Your task to perform on an android device: Open CNN.com Image 0: 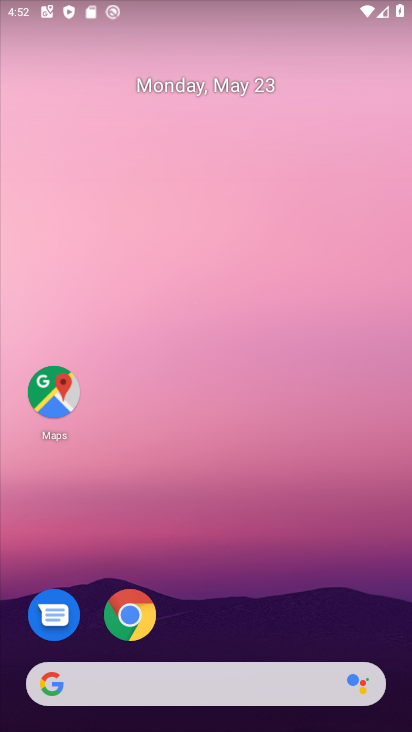
Step 0: click (143, 610)
Your task to perform on an android device: Open CNN.com Image 1: 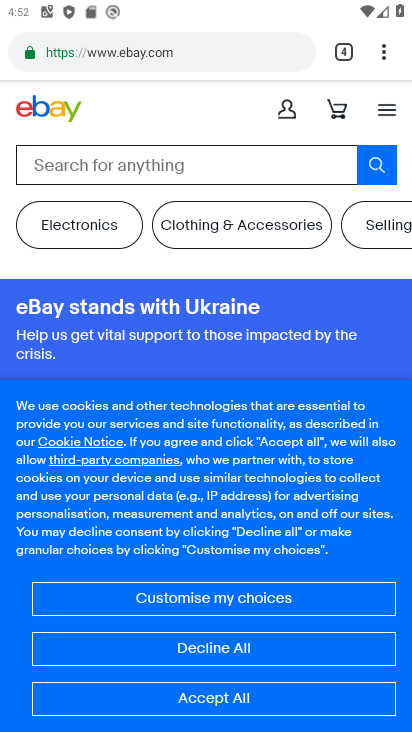
Step 1: click (340, 57)
Your task to perform on an android device: Open CNN.com Image 2: 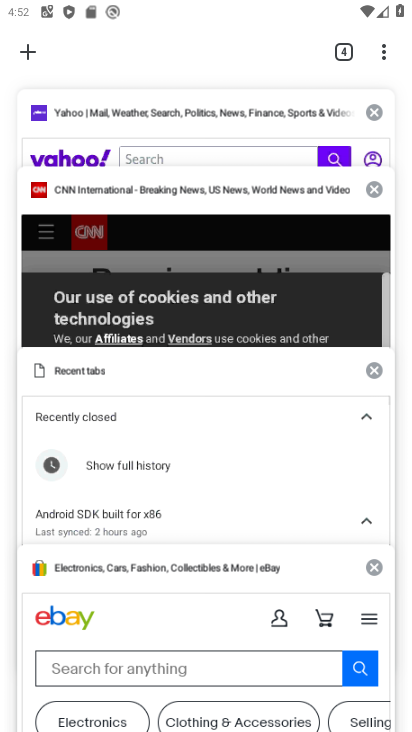
Step 2: drag from (158, 175) to (189, 465)
Your task to perform on an android device: Open CNN.com Image 3: 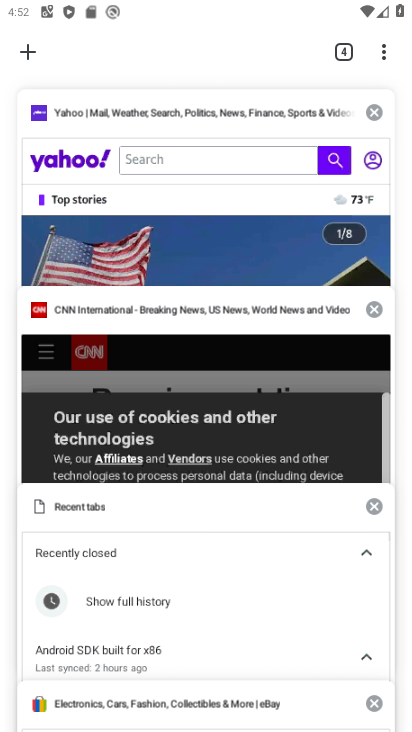
Step 3: click (106, 369)
Your task to perform on an android device: Open CNN.com Image 4: 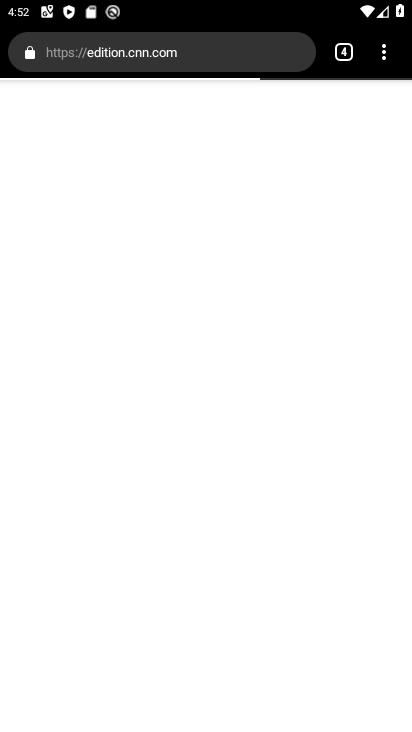
Step 4: task complete